Your task to perform on an android device: Open notification settings Image 0: 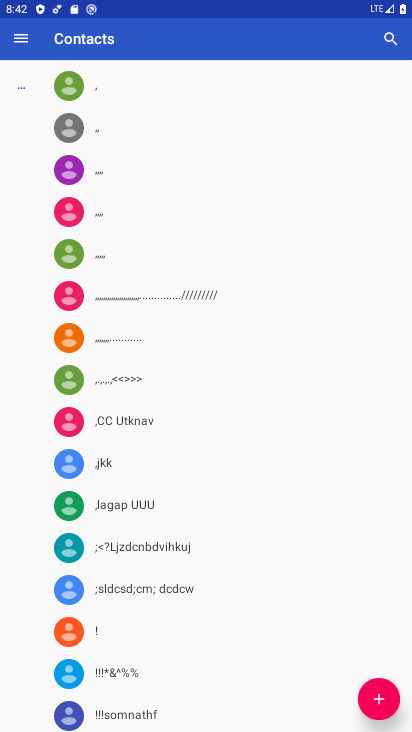
Step 0: press home button
Your task to perform on an android device: Open notification settings Image 1: 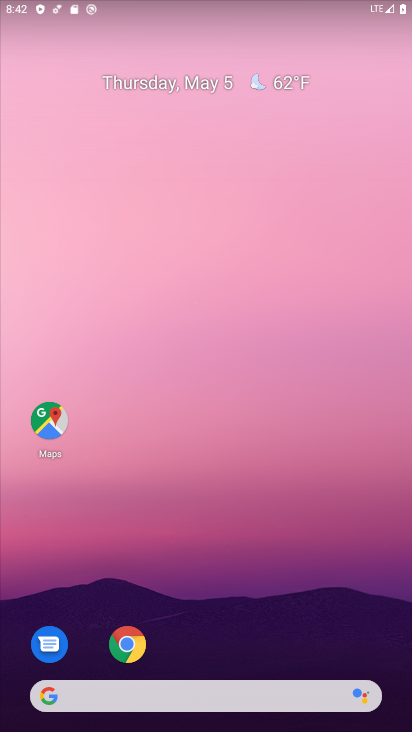
Step 1: drag from (322, 581) to (358, 48)
Your task to perform on an android device: Open notification settings Image 2: 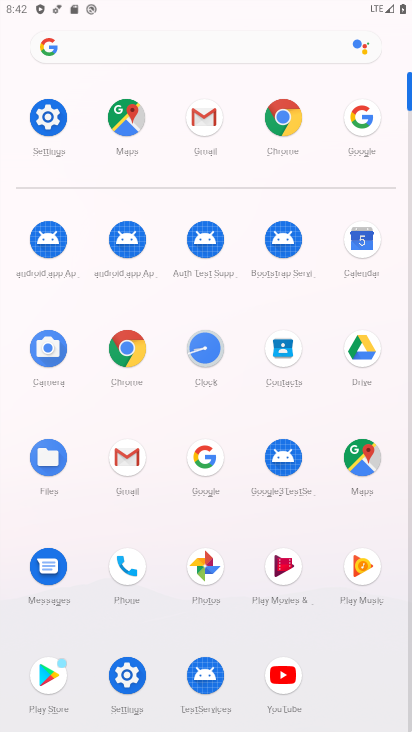
Step 2: click (36, 120)
Your task to perform on an android device: Open notification settings Image 3: 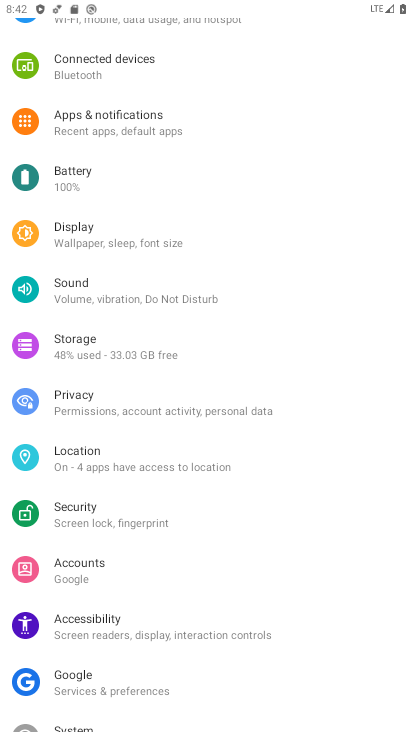
Step 3: drag from (171, 187) to (168, 458)
Your task to perform on an android device: Open notification settings Image 4: 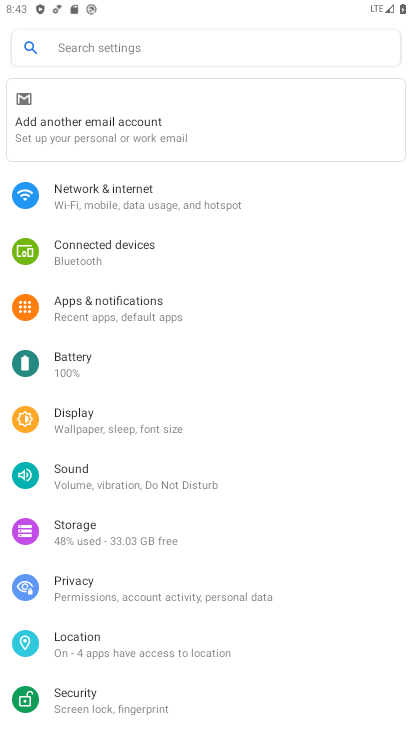
Step 4: click (153, 302)
Your task to perform on an android device: Open notification settings Image 5: 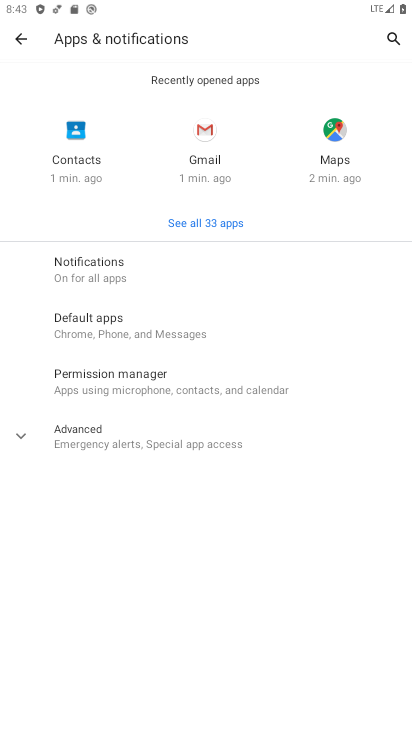
Step 5: click (81, 262)
Your task to perform on an android device: Open notification settings Image 6: 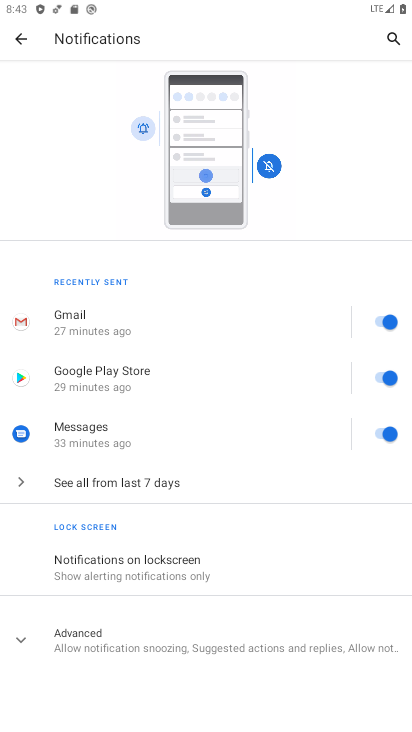
Step 6: task complete